Your task to perform on an android device: open a bookmark in the chrome app Image 0: 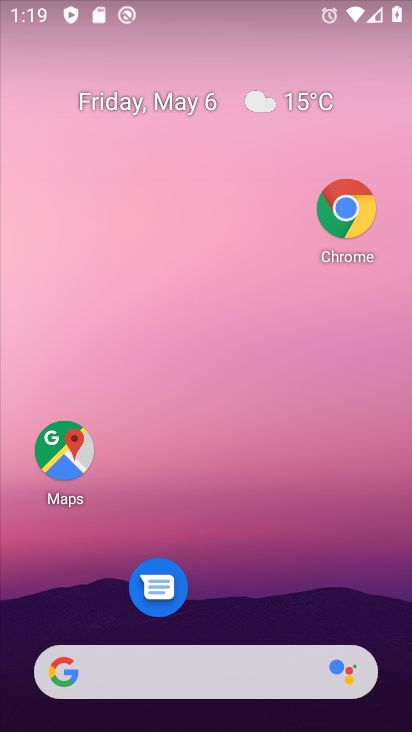
Step 0: click (337, 248)
Your task to perform on an android device: open a bookmark in the chrome app Image 1: 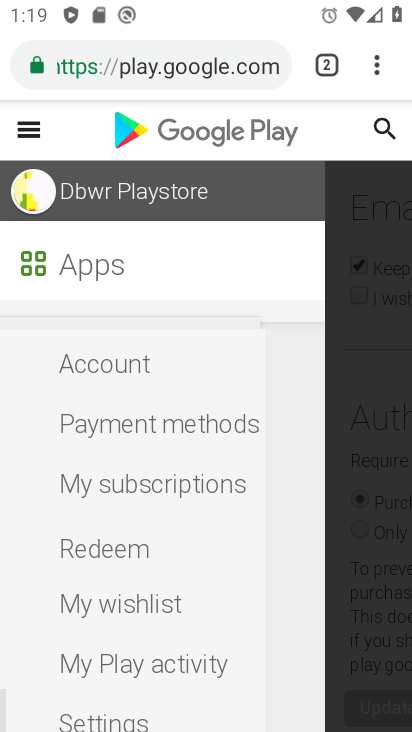
Step 1: click (382, 69)
Your task to perform on an android device: open a bookmark in the chrome app Image 2: 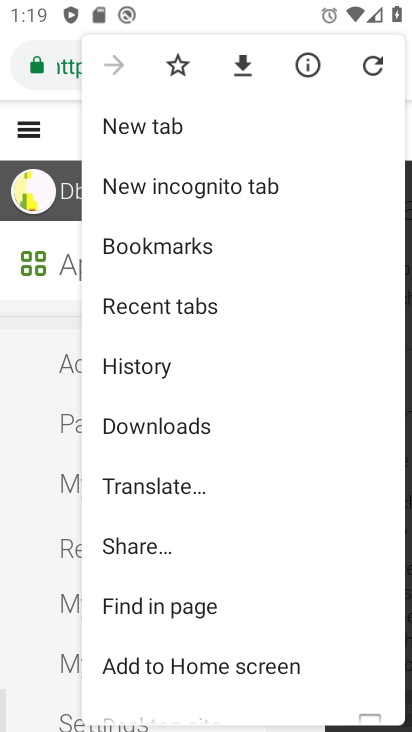
Step 2: click (168, 250)
Your task to perform on an android device: open a bookmark in the chrome app Image 3: 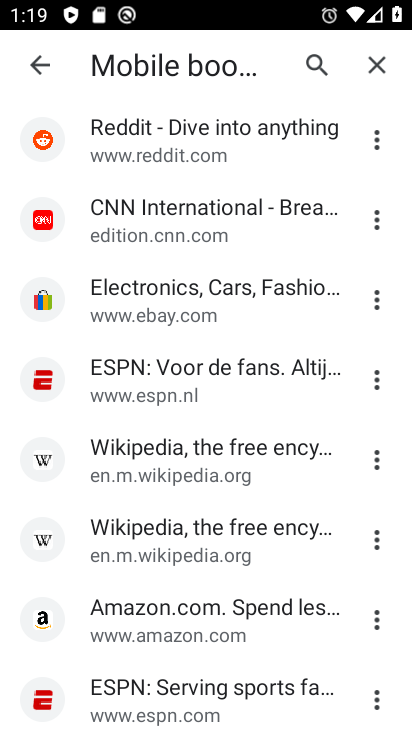
Step 3: click (153, 219)
Your task to perform on an android device: open a bookmark in the chrome app Image 4: 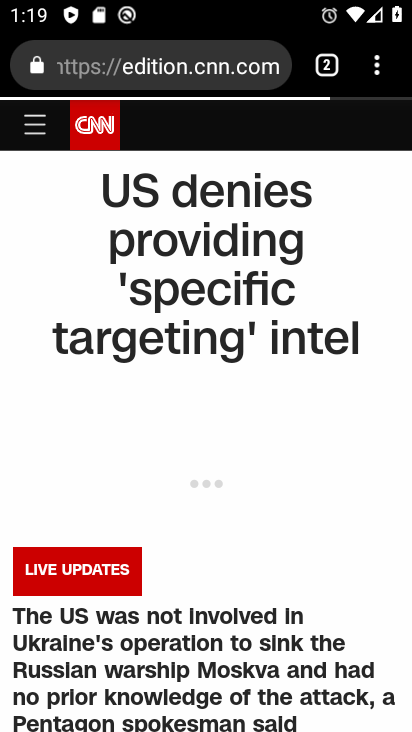
Step 4: task complete